Your task to perform on an android device: stop showing notifications on the lock screen Image 0: 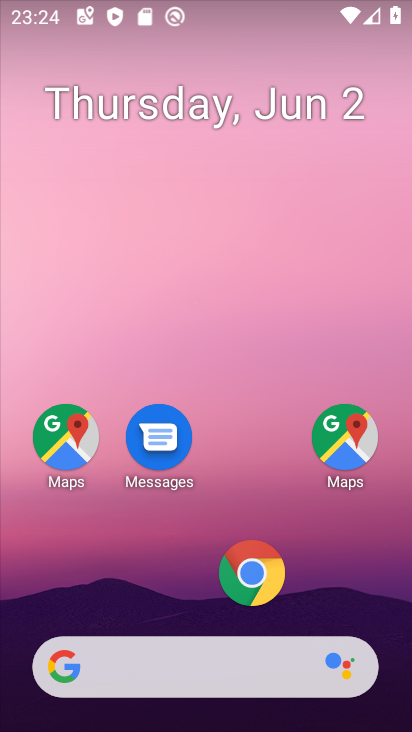
Step 0: drag from (332, 575) to (240, 197)
Your task to perform on an android device: stop showing notifications on the lock screen Image 1: 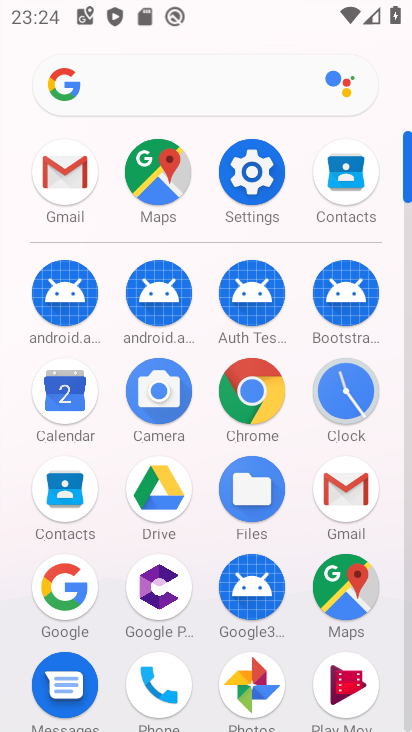
Step 1: click (256, 184)
Your task to perform on an android device: stop showing notifications on the lock screen Image 2: 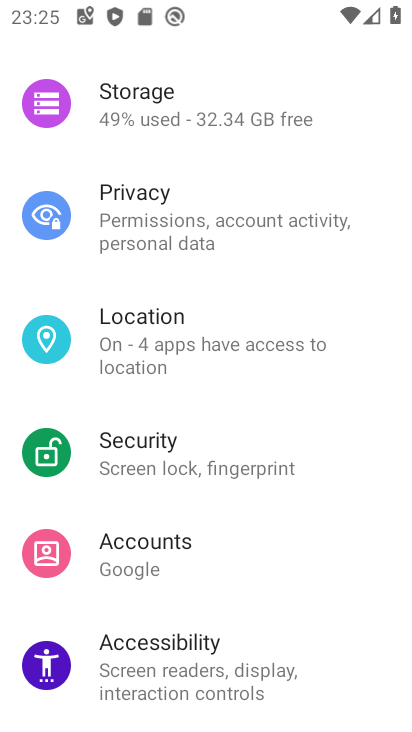
Step 2: drag from (258, 224) to (265, 560)
Your task to perform on an android device: stop showing notifications on the lock screen Image 3: 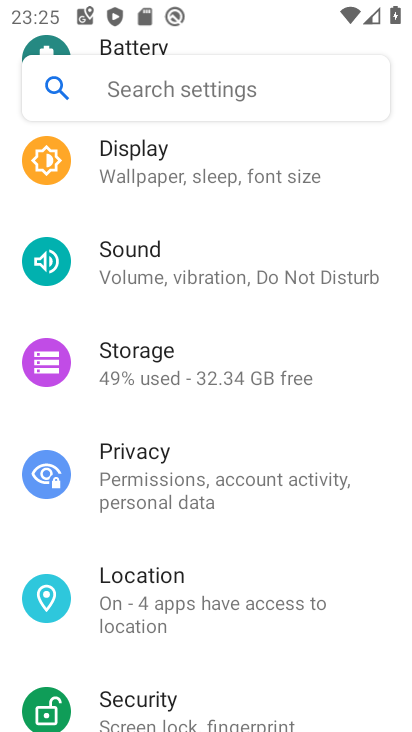
Step 3: drag from (181, 206) to (194, 591)
Your task to perform on an android device: stop showing notifications on the lock screen Image 4: 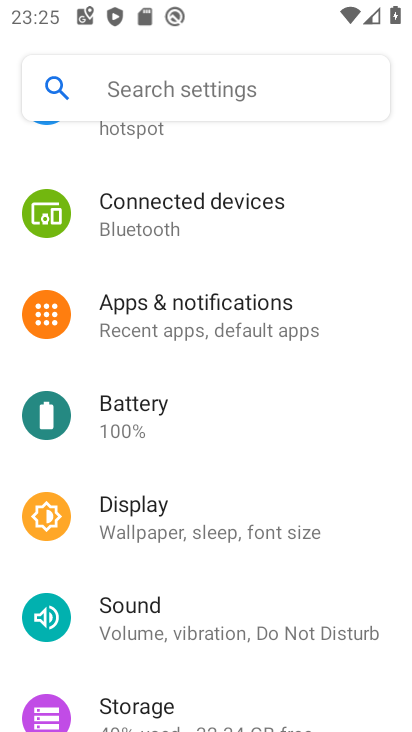
Step 4: click (182, 302)
Your task to perform on an android device: stop showing notifications on the lock screen Image 5: 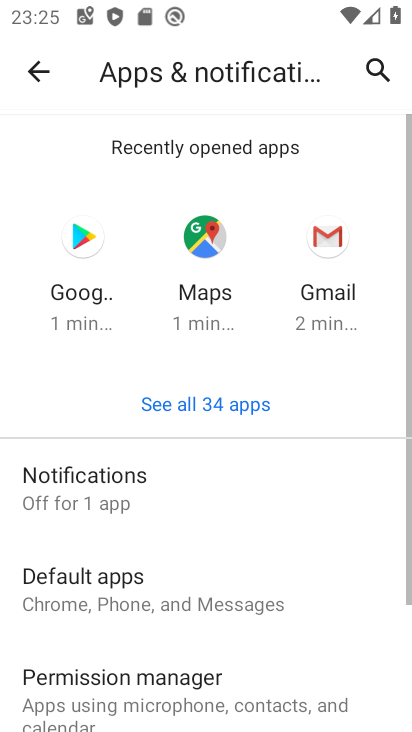
Step 5: drag from (134, 619) to (114, 157)
Your task to perform on an android device: stop showing notifications on the lock screen Image 6: 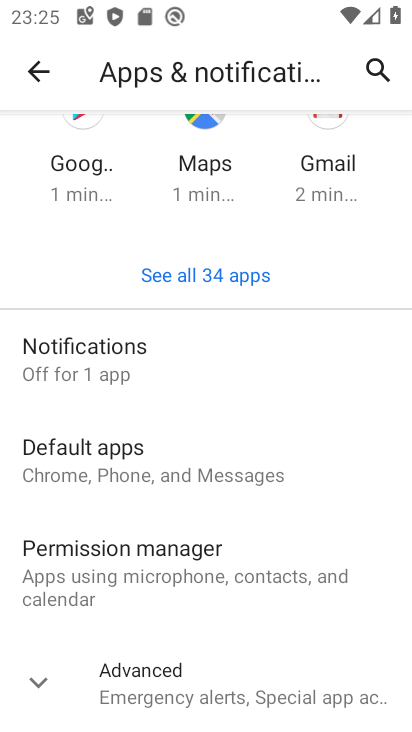
Step 6: press back button
Your task to perform on an android device: stop showing notifications on the lock screen Image 7: 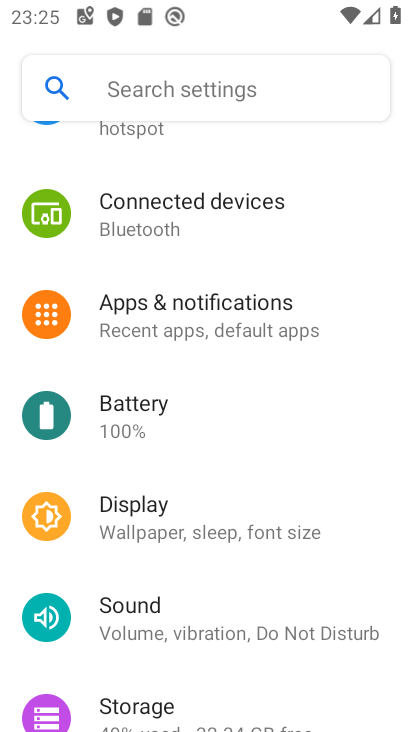
Step 7: drag from (209, 236) to (199, 547)
Your task to perform on an android device: stop showing notifications on the lock screen Image 8: 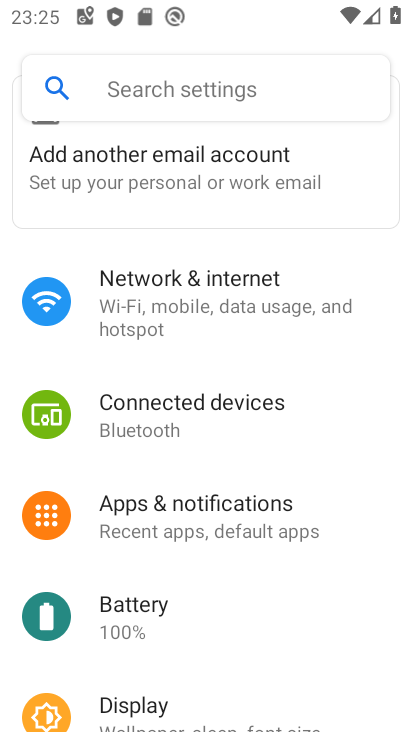
Step 8: drag from (221, 523) to (230, 160)
Your task to perform on an android device: stop showing notifications on the lock screen Image 9: 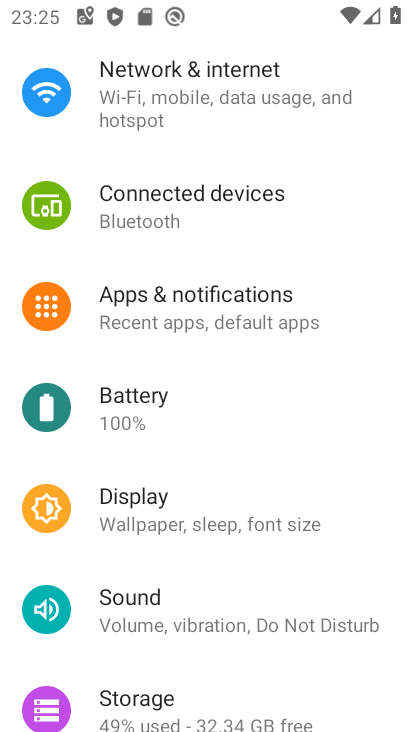
Step 9: drag from (147, 617) to (80, 237)
Your task to perform on an android device: stop showing notifications on the lock screen Image 10: 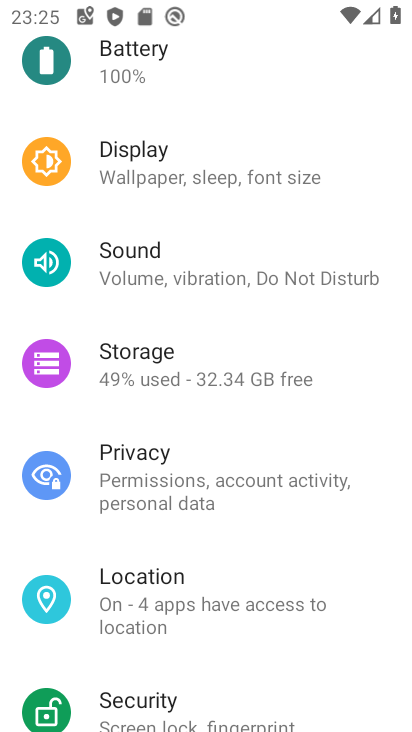
Step 10: drag from (154, 601) to (213, 157)
Your task to perform on an android device: stop showing notifications on the lock screen Image 11: 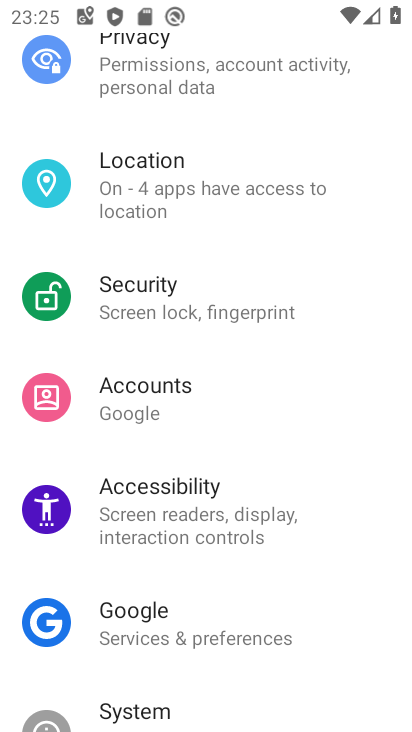
Step 11: drag from (225, 612) to (251, 243)
Your task to perform on an android device: stop showing notifications on the lock screen Image 12: 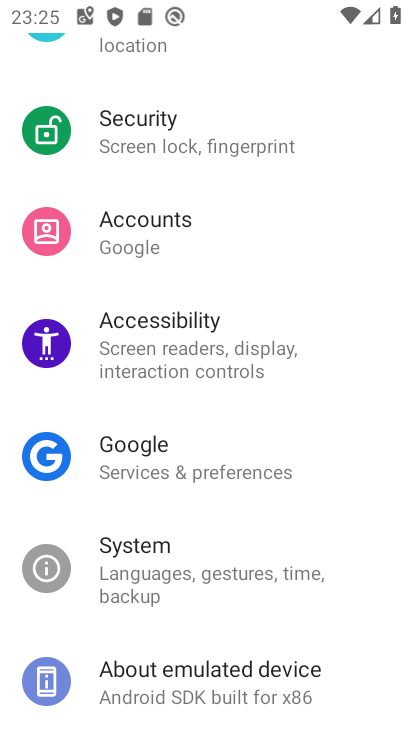
Step 12: drag from (258, 197) to (158, 656)
Your task to perform on an android device: stop showing notifications on the lock screen Image 13: 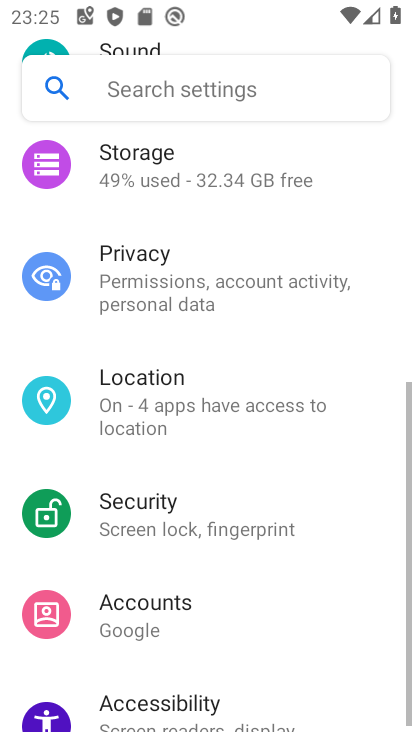
Step 13: drag from (159, 680) to (138, 94)
Your task to perform on an android device: stop showing notifications on the lock screen Image 14: 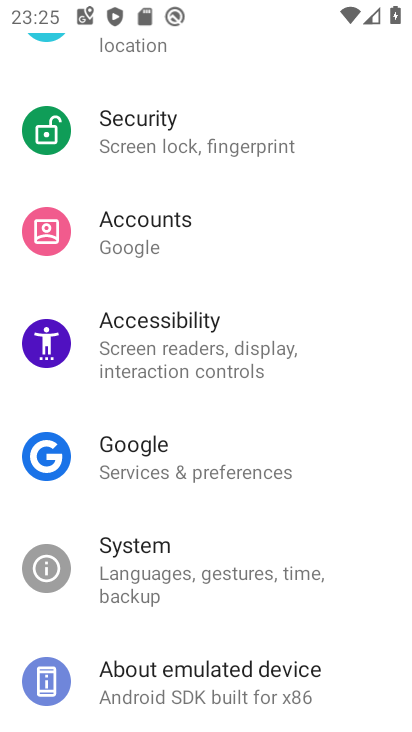
Step 14: click (156, 706)
Your task to perform on an android device: stop showing notifications on the lock screen Image 15: 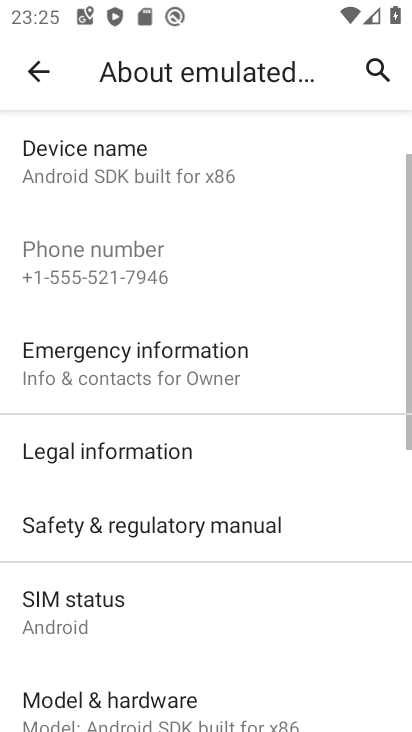
Step 15: drag from (190, 580) to (193, 178)
Your task to perform on an android device: stop showing notifications on the lock screen Image 16: 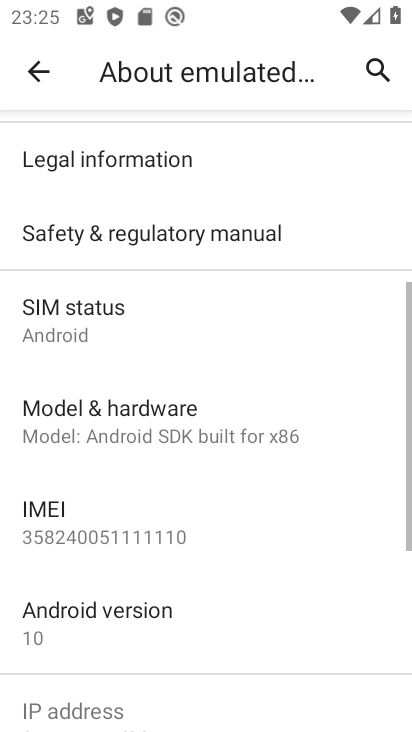
Step 16: press back button
Your task to perform on an android device: stop showing notifications on the lock screen Image 17: 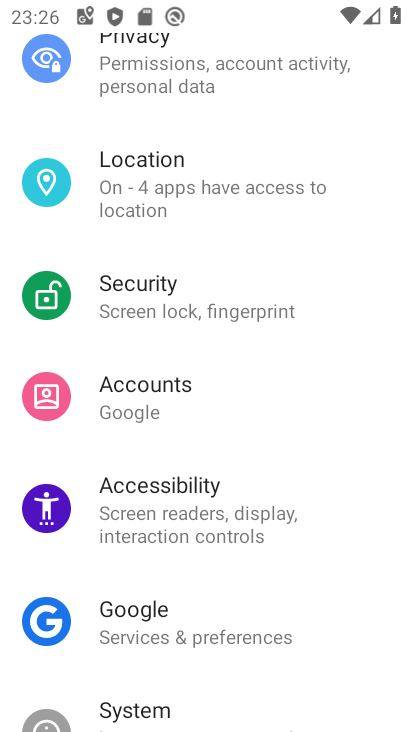
Step 17: drag from (174, 213) to (210, 498)
Your task to perform on an android device: stop showing notifications on the lock screen Image 18: 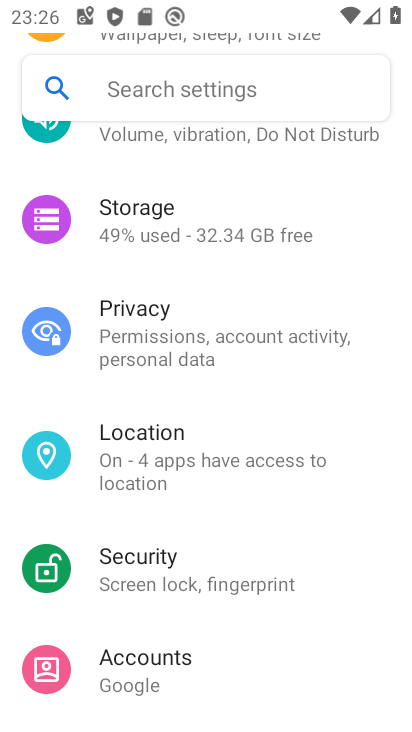
Step 18: drag from (247, 243) to (183, 642)
Your task to perform on an android device: stop showing notifications on the lock screen Image 19: 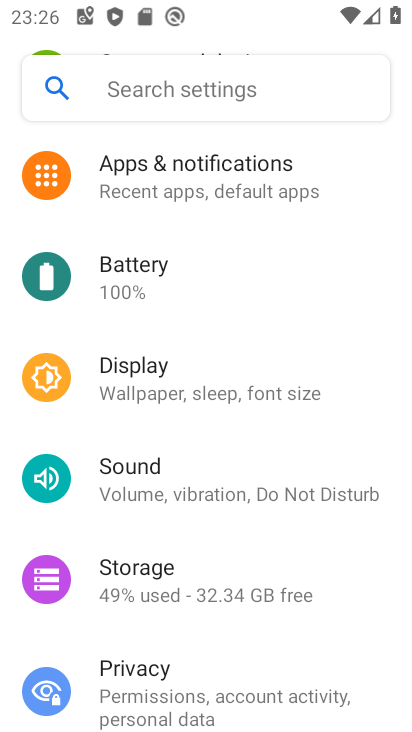
Step 19: drag from (238, 320) to (199, 651)
Your task to perform on an android device: stop showing notifications on the lock screen Image 20: 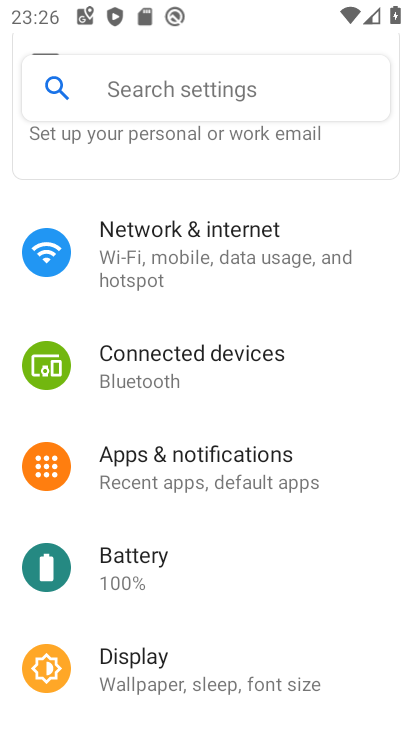
Step 20: click (179, 465)
Your task to perform on an android device: stop showing notifications on the lock screen Image 21: 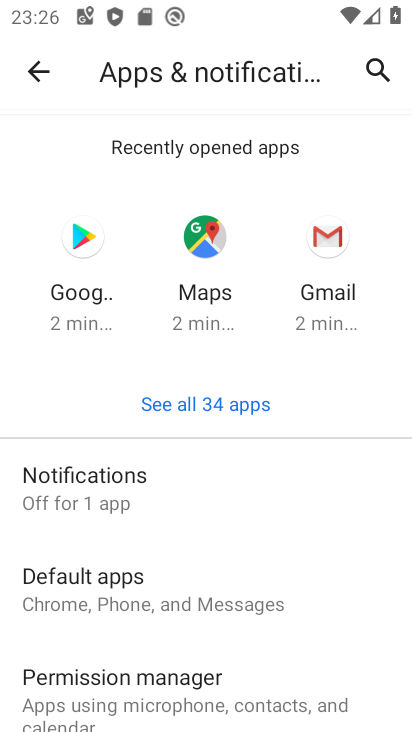
Step 21: click (144, 473)
Your task to perform on an android device: stop showing notifications on the lock screen Image 22: 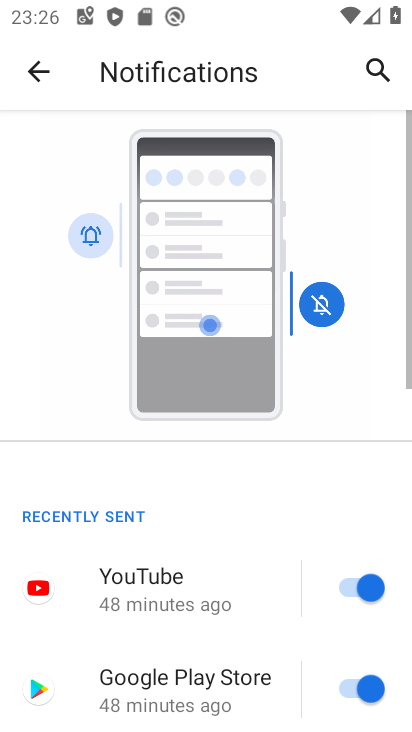
Step 22: drag from (133, 631) to (168, 226)
Your task to perform on an android device: stop showing notifications on the lock screen Image 23: 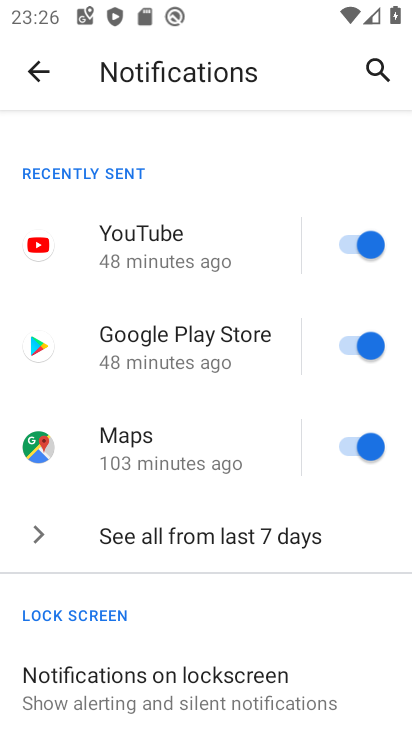
Step 23: click (123, 669)
Your task to perform on an android device: stop showing notifications on the lock screen Image 24: 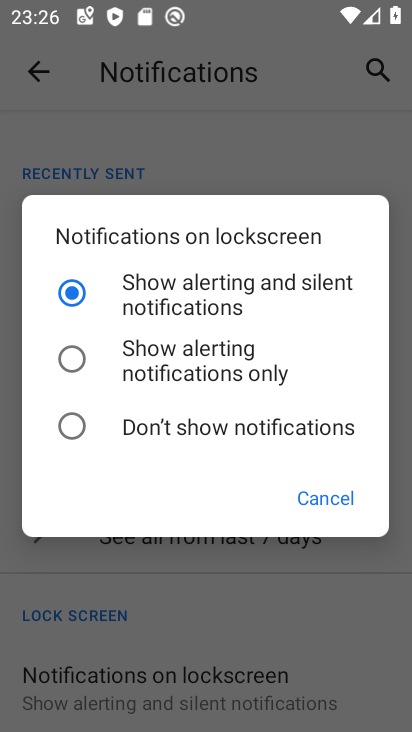
Step 24: click (92, 434)
Your task to perform on an android device: stop showing notifications on the lock screen Image 25: 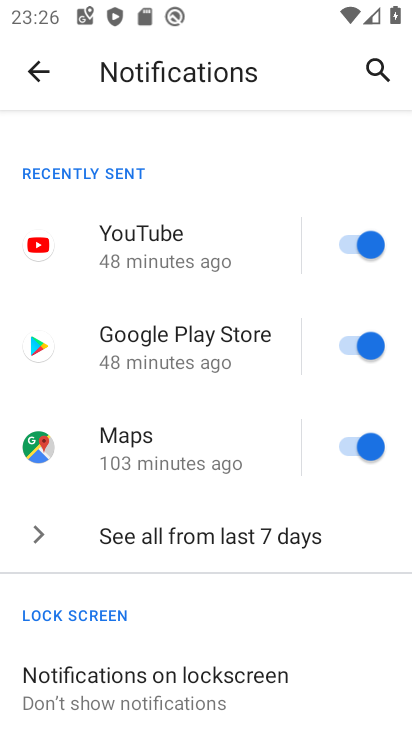
Step 25: task complete